Your task to perform on an android device: see tabs open on other devices in the chrome app Image 0: 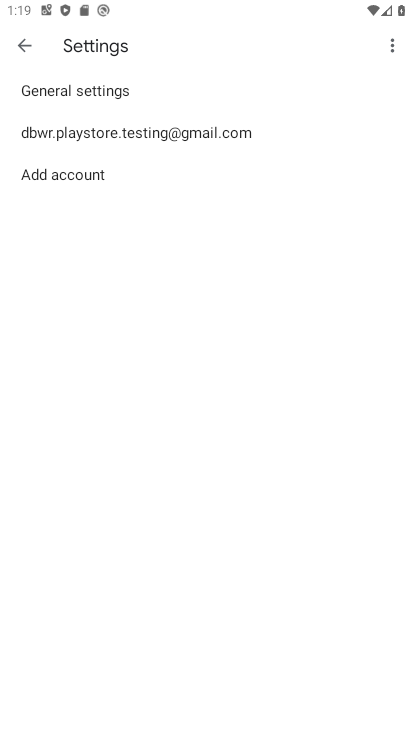
Step 0: press home button
Your task to perform on an android device: see tabs open on other devices in the chrome app Image 1: 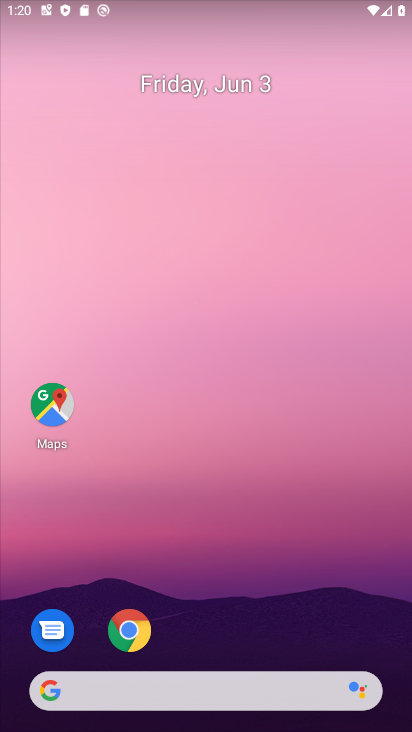
Step 1: click (132, 632)
Your task to perform on an android device: see tabs open on other devices in the chrome app Image 2: 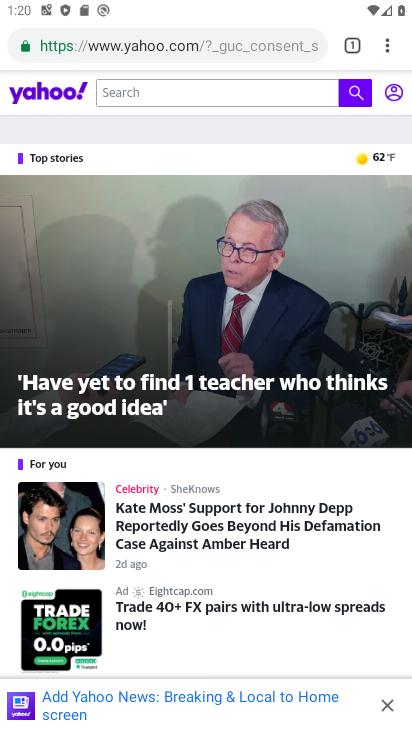
Step 2: click (388, 51)
Your task to perform on an android device: see tabs open on other devices in the chrome app Image 3: 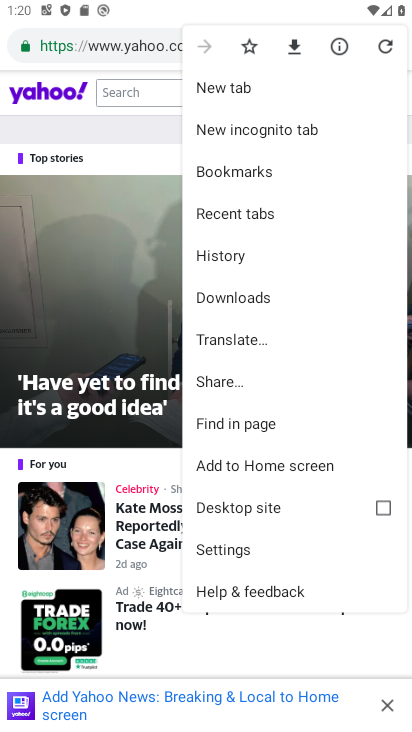
Step 3: click (239, 213)
Your task to perform on an android device: see tabs open on other devices in the chrome app Image 4: 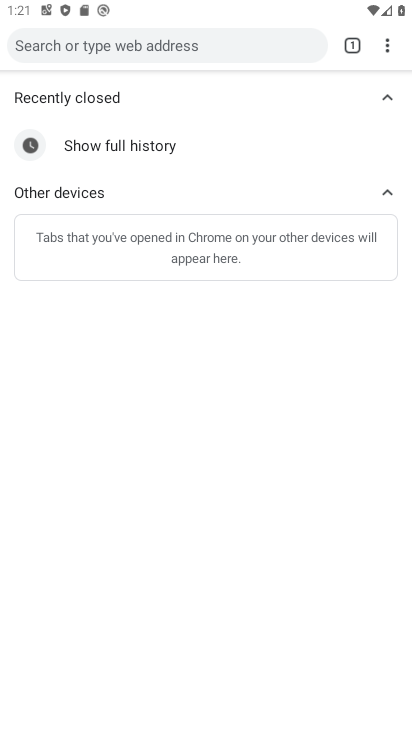
Step 4: task complete